Your task to perform on an android device: Is it going to rain today? Image 0: 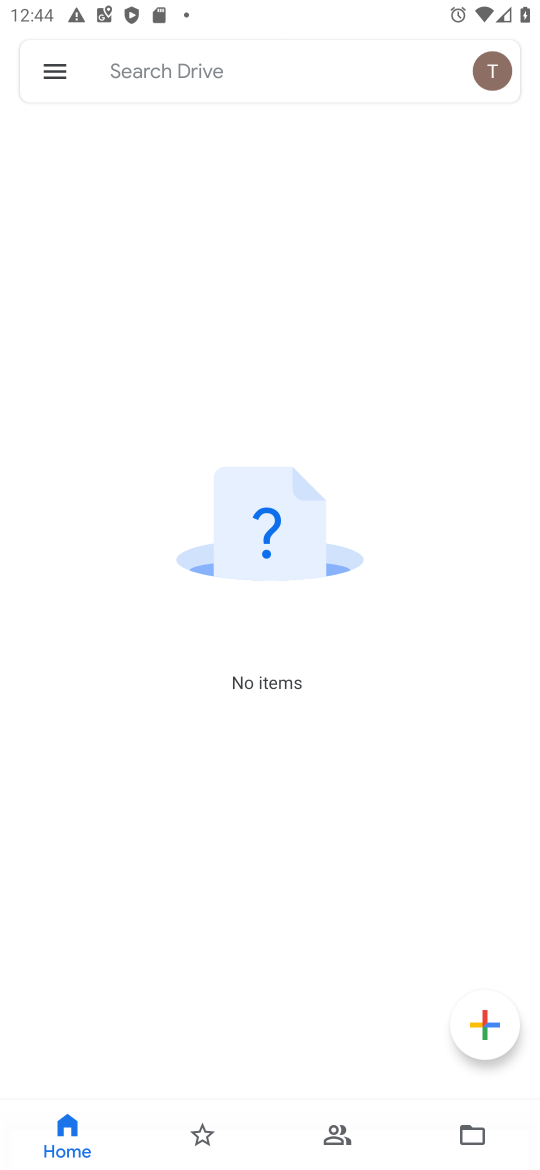
Step 0: press home button
Your task to perform on an android device: Is it going to rain today? Image 1: 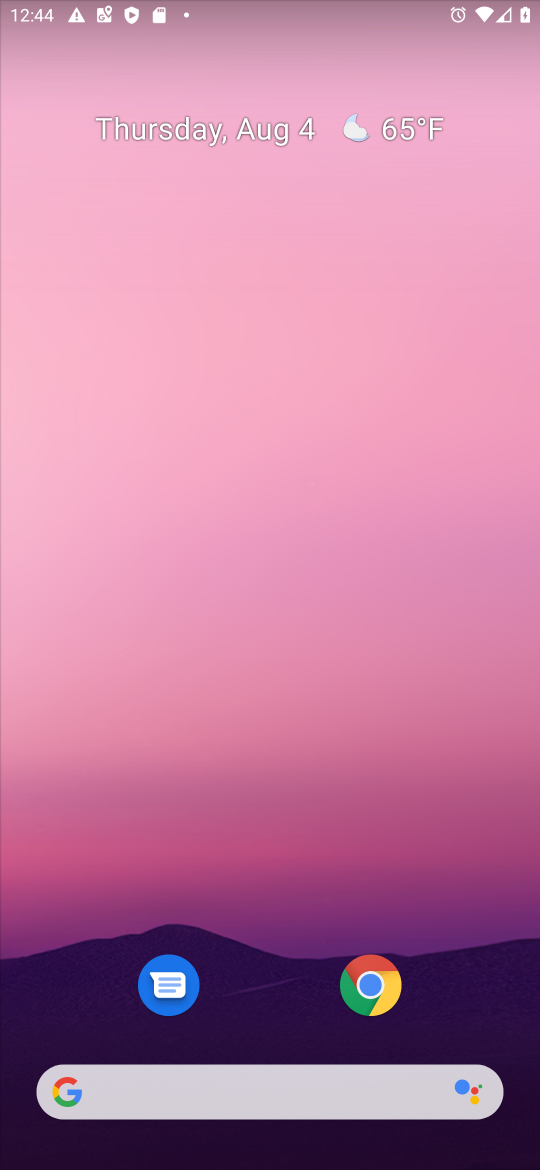
Step 1: click (250, 1084)
Your task to perform on an android device: Is it going to rain today? Image 2: 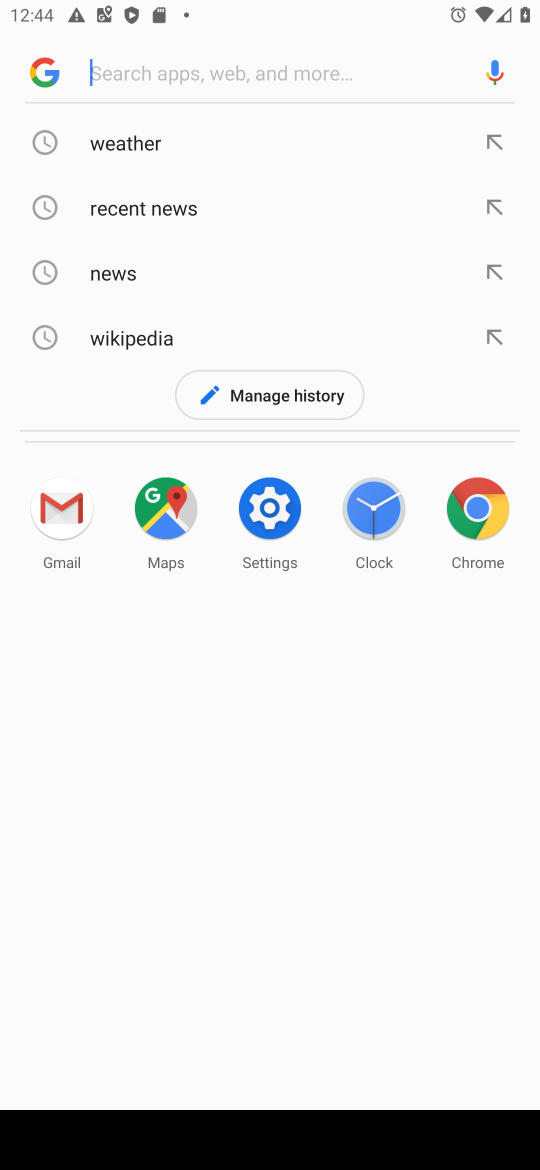
Step 2: click (144, 135)
Your task to perform on an android device: Is it going to rain today? Image 3: 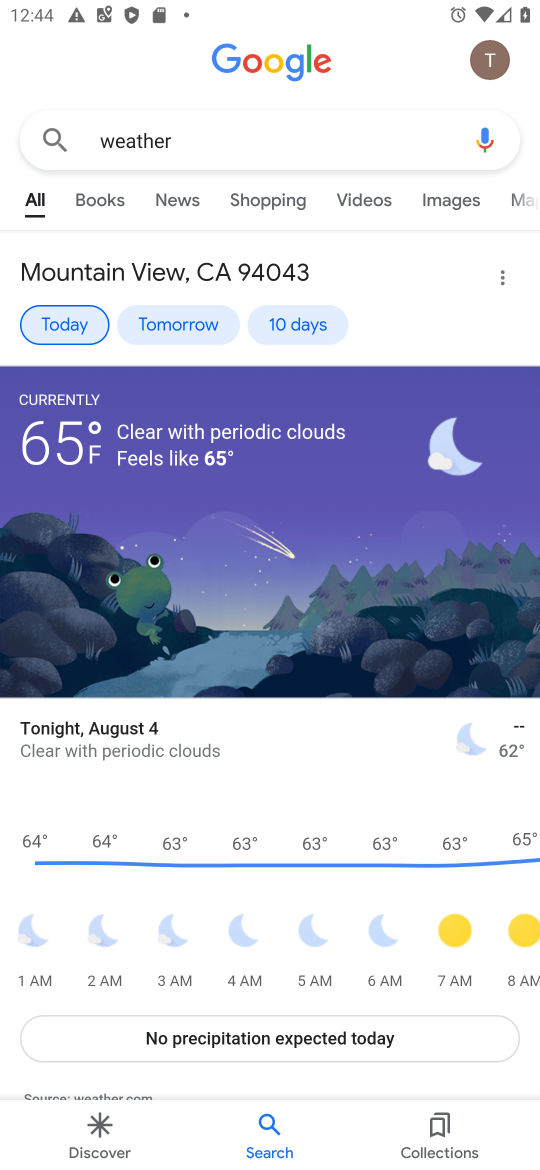
Step 3: task complete